Your task to perform on an android device: install app "Viber Messenger" Image 0: 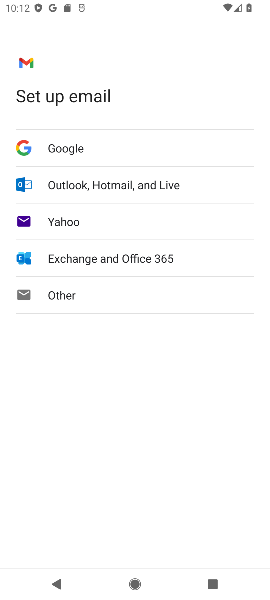
Step 0: press home button
Your task to perform on an android device: install app "Viber Messenger" Image 1: 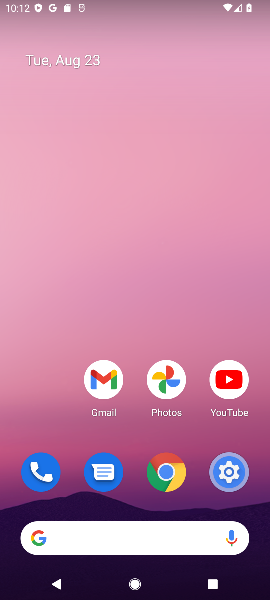
Step 1: drag from (117, 493) to (131, 1)
Your task to perform on an android device: install app "Viber Messenger" Image 2: 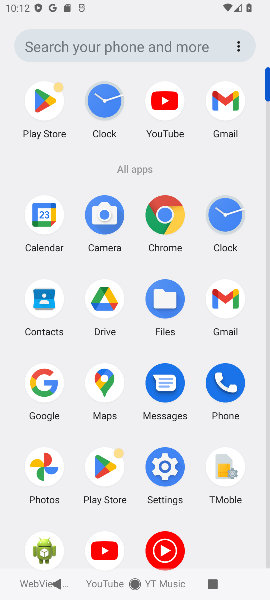
Step 2: click (107, 471)
Your task to perform on an android device: install app "Viber Messenger" Image 3: 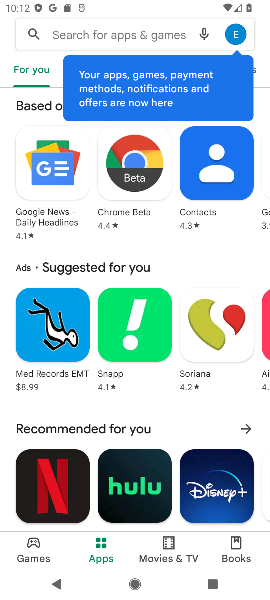
Step 3: click (60, 21)
Your task to perform on an android device: install app "Viber Messenger" Image 4: 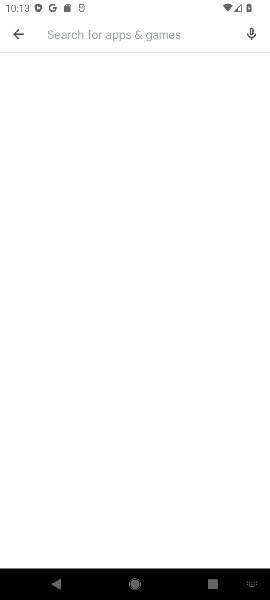
Step 4: type "viber messenger"
Your task to perform on an android device: install app "Viber Messenger" Image 5: 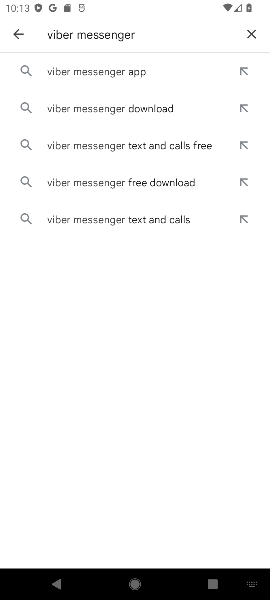
Step 5: click (105, 77)
Your task to perform on an android device: install app "Viber Messenger" Image 6: 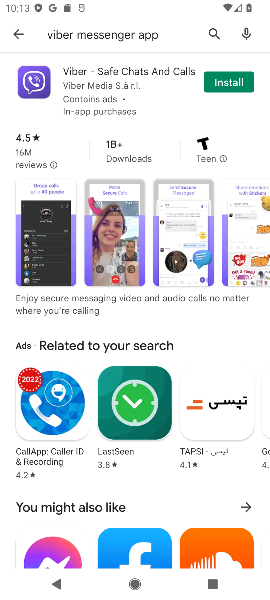
Step 6: click (234, 76)
Your task to perform on an android device: install app "Viber Messenger" Image 7: 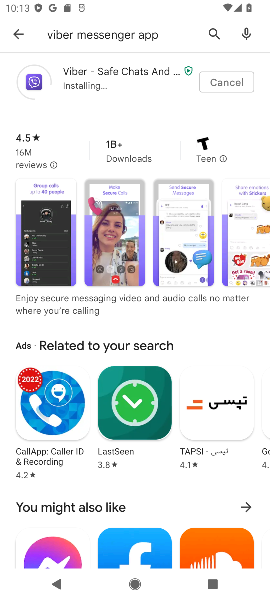
Step 7: task complete